Your task to perform on an android device: Go to ESPN.com Image 0: 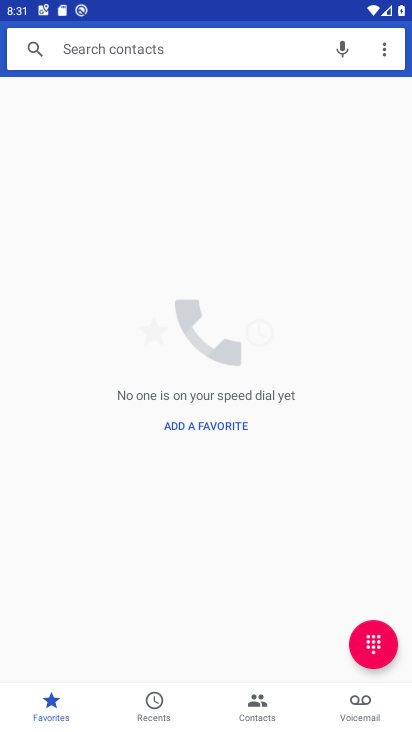
Step 0: press back button
Your task to perform on an android device: Go to ESPN.com Image 1: 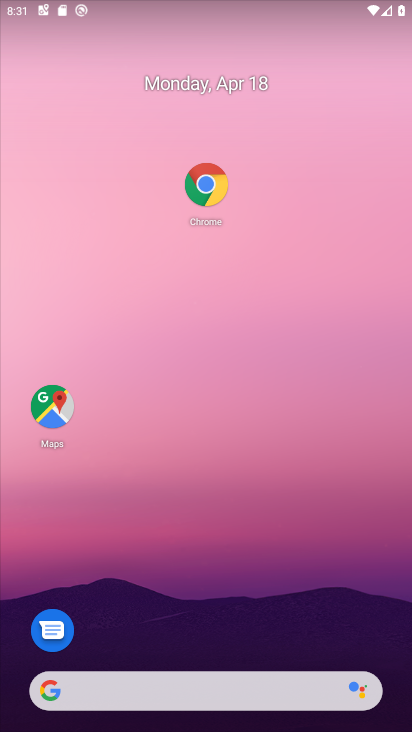
Step 1: click (208, 690)
Your task to perform on an android device: Go to ESPN.com Image 2: 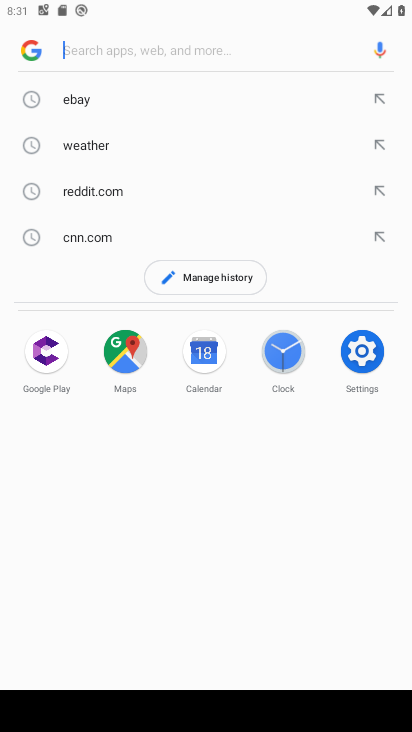
Step 2: type "ESPN.com"
Your task to perform on an android device: Go to ESPN.com Image 3: 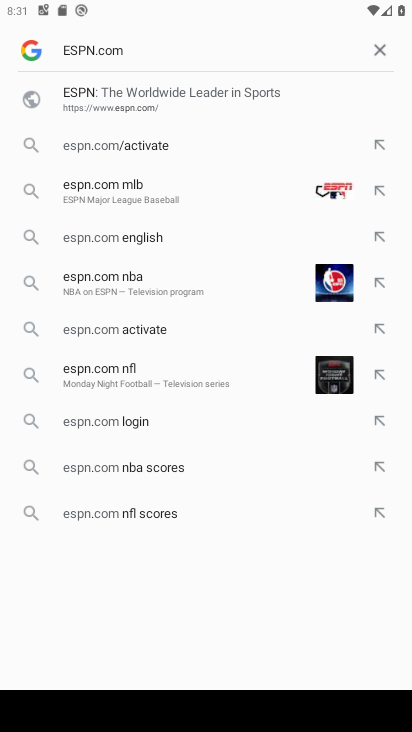
Step 3: click (186, 113)
Your task to perform on an android device: Go to ESPN.com Image 4: 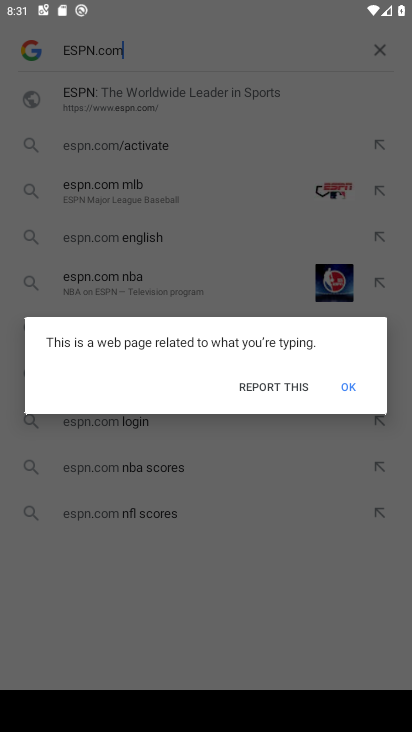
Step 4: click (344, 391)
Your task to perform on an android device: Go to ESPN.com Image 5: 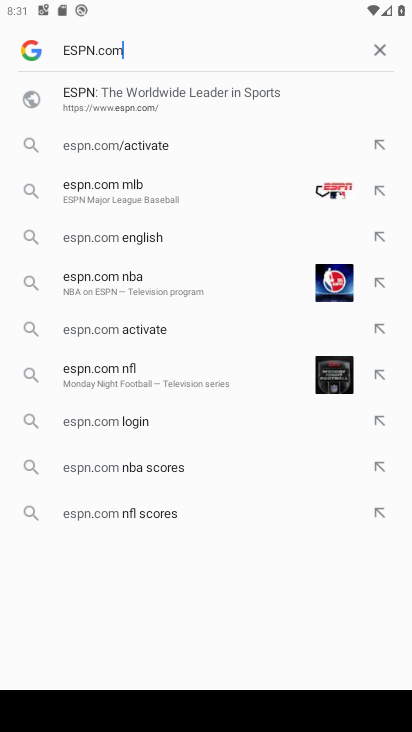
Step 5: click (191, 82)
Your task to perform on an android device: Go to ESPN.com Image 6: 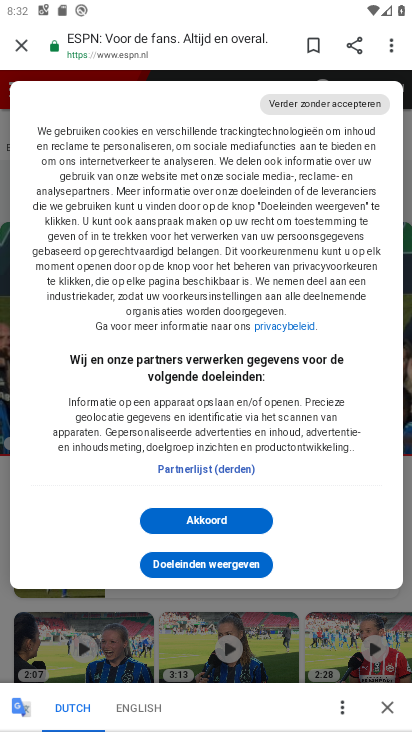
Step 6: click (215, 520)
Your task to perform on an android device: Go to ESPN.com Image 7: 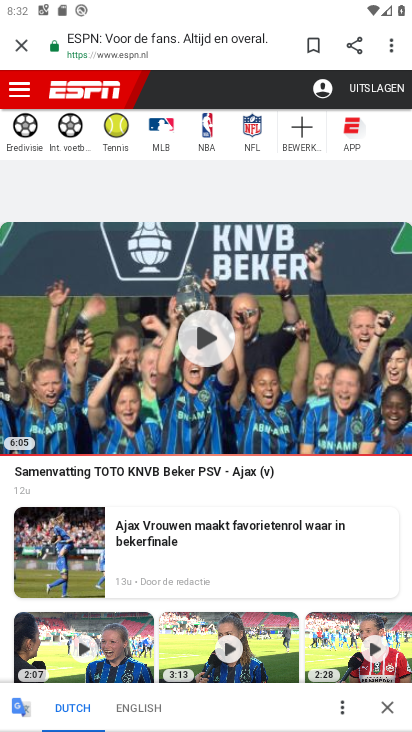
Step 7: task complete